Your task to perform on an android device: turn smart compose on in the gmail app Image 0: 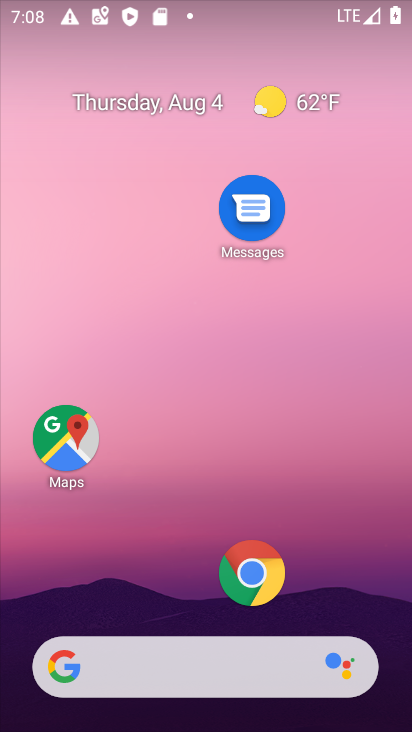
Step 0: press home button
Your task to perform on an android device: turn smart compose on in the gmail app Image 1: 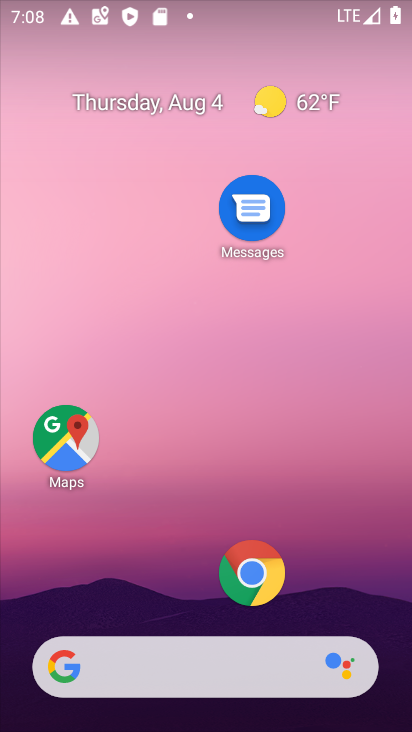
Step 1: click (242, 2)
Your task to perform on an android device: turn smart compose on in the gmail app Image 2: 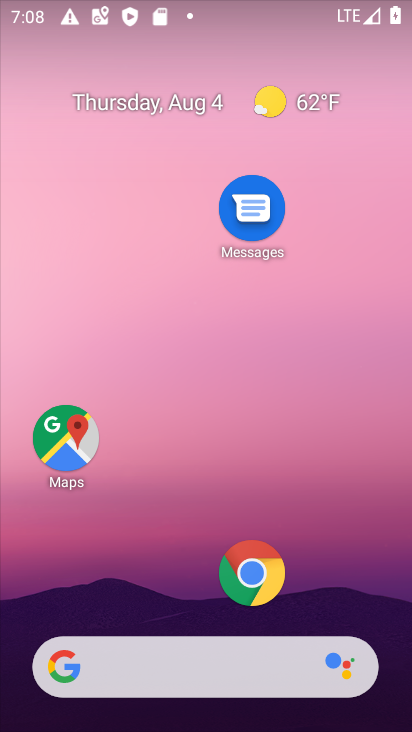
Step 2: drag from (171, 601) to (187, 117)
Your task to perform on an android device: turn smart compose on in the gmail app Image 3: 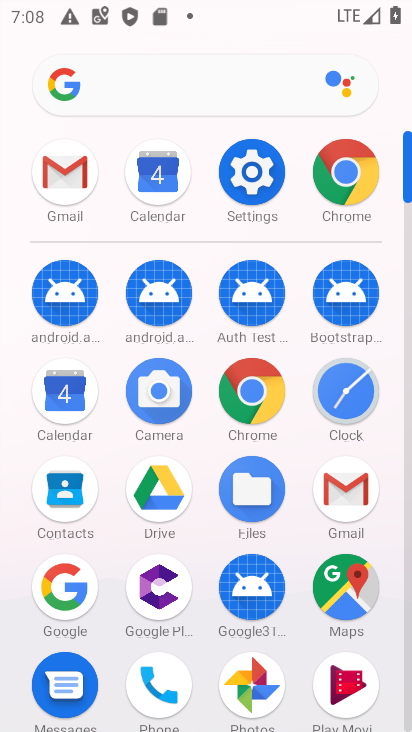
Step 3: click (65, 192)
Your task to perform on an android device: turn smart compose on in the gmail app Image 4: 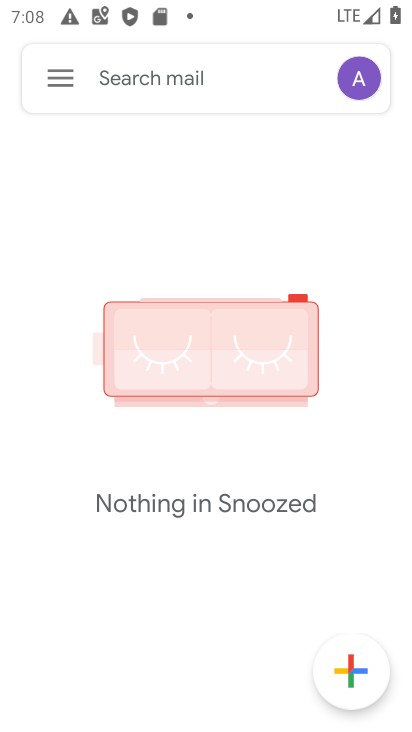
Step 4: click (70, 73)
Your task to perform on an android device: turn smart compose on in the gmail app Image 5: 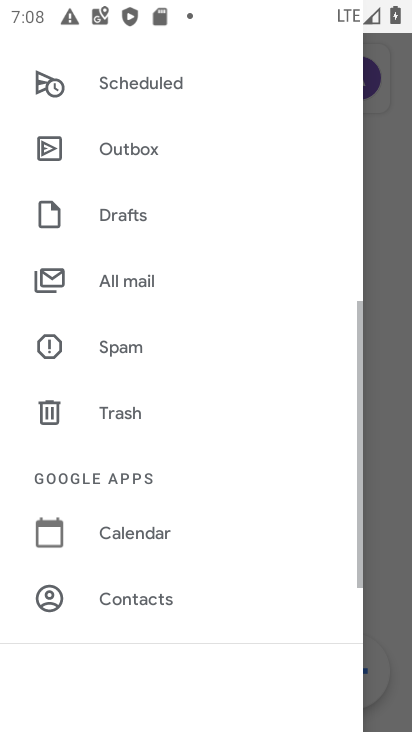
Step 5: drag from (230, 589) to (202, 74)
Your task to perform on an android device: turn smart compose on in the gmail app Image 6: 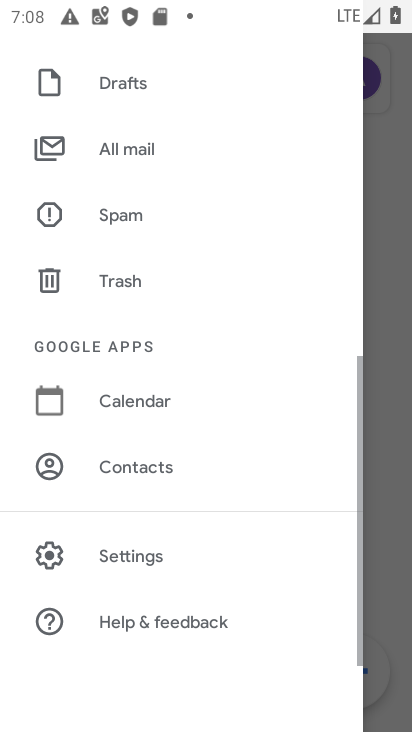
Step 6: click (127, 559)
Your task to perform on an android device: turn smart compose on in the gmail app Image 7: 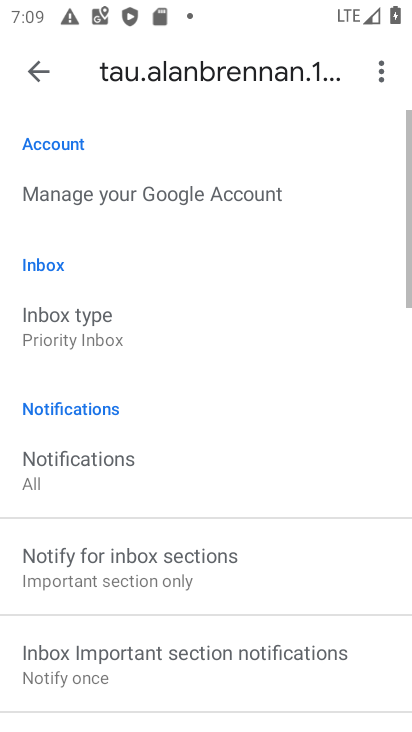
Step 7: task complete